Your task to perform on an android device: delete a single message in the gmail app Image 0: 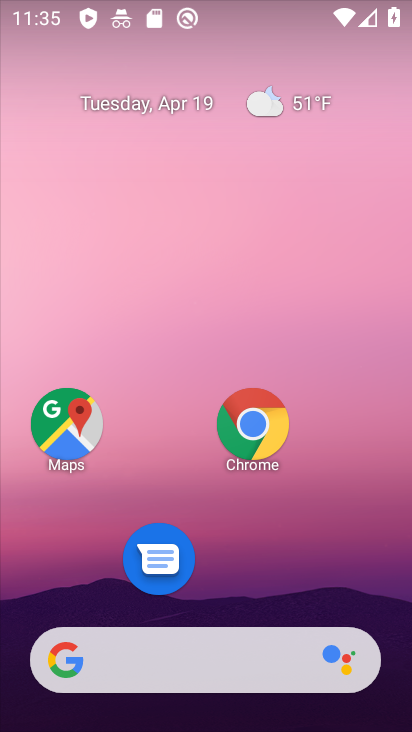
Step 0: drag from (326, 635) to (167, 70)
Your task to perform on an android device: delete a single message in the gmail app Image 1: 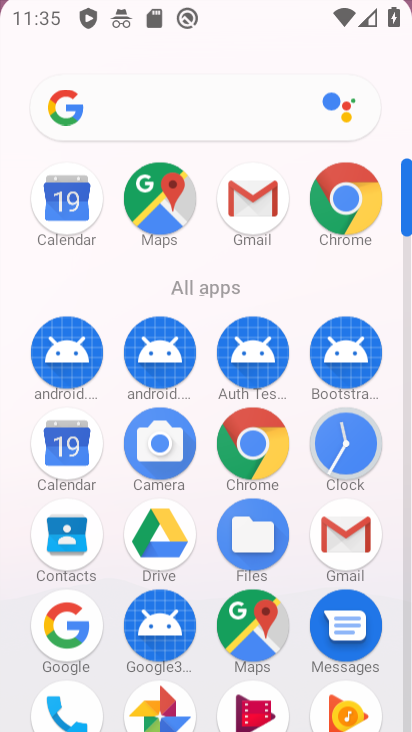
Step 1: drag from (237, 631) to (121, 5)
Your task to perform on an android device: delete a single message in the gmail app Image 2: 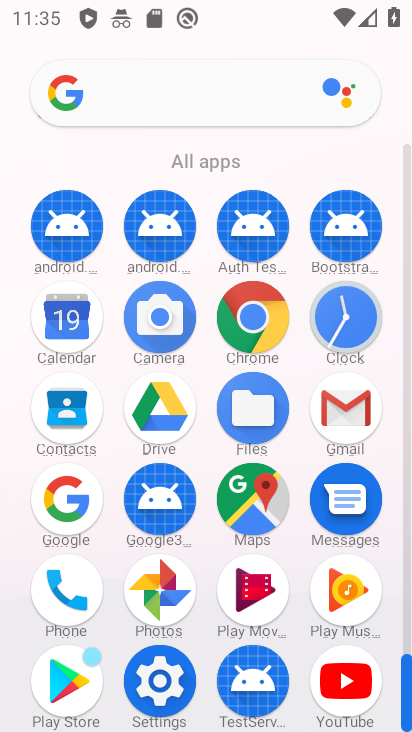
Step 2: click (341, 403)
Your task to perform on an android device: delete a single message in the gmail app Image 3: 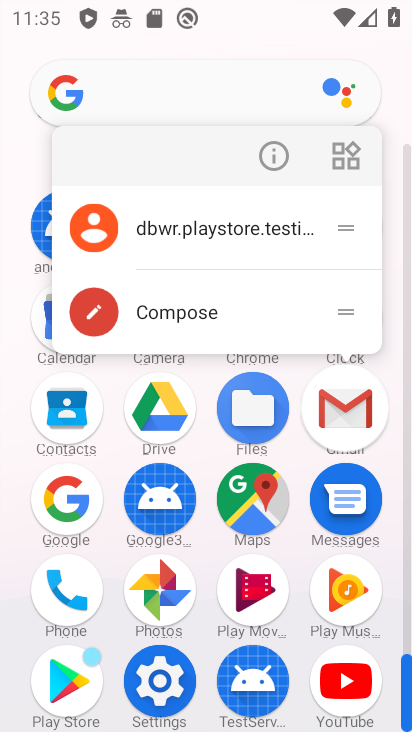
Step 3: click (341, 403)
Your task to perform on an android device: delete a single message in the gmail app Image 4: 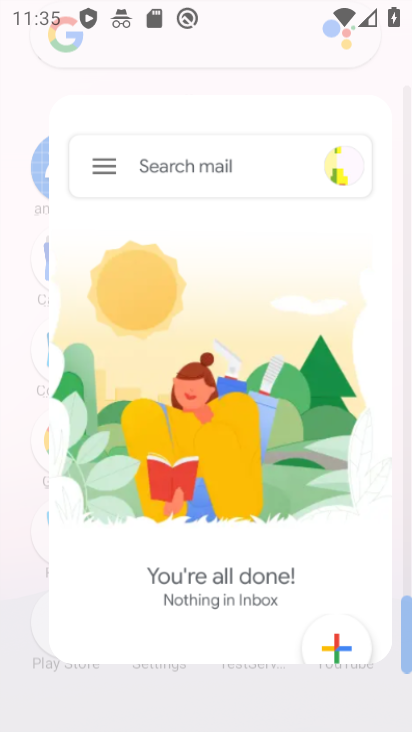
Step 4: click (341, 403)
Your task to perform on an android device: delete a single message in the gmail app Image 5: 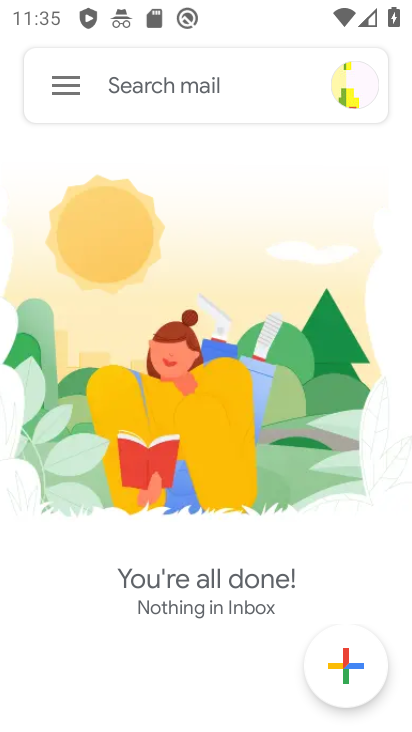
Step 5: click (60, 89)
Your task to perform on an android device: delete a single message in the gmail app Image 6: 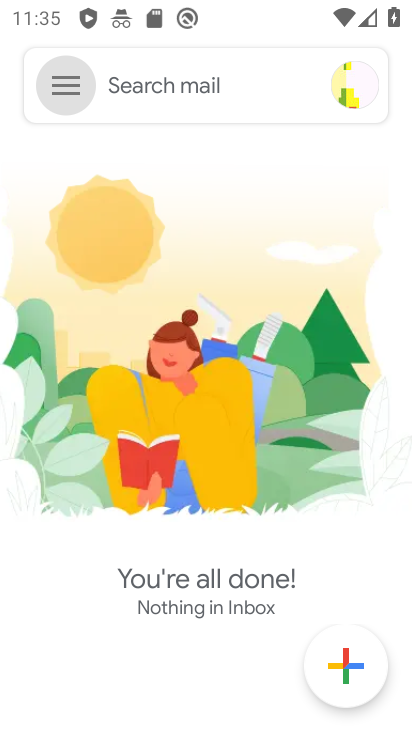
Step 6: click (60, 89)
Your task to perform on an android device: delete a single message in the gmail app Image 7: 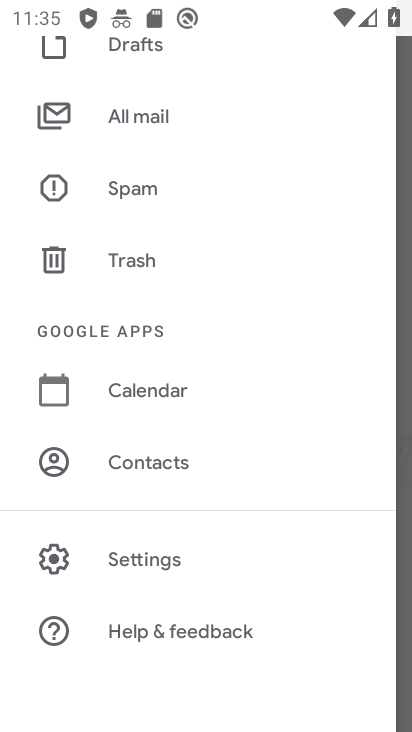
Step 7: click (116, 108)
Your task to perform on an android device: delete a single message in the gmail app Image 8: 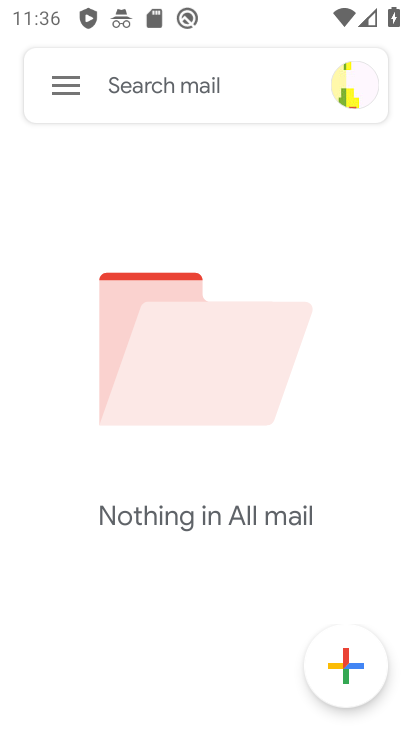
Step 8: click (60, 73)
Your task to perform on an android device: delete a single message in the gmail app Image 9: 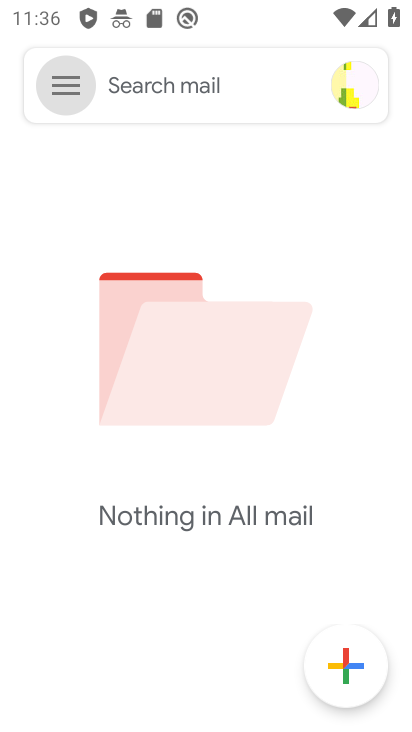
Step 9: click (60, 78)
Your task to perform on an android device: delete a single message in the gmail app Image 10: 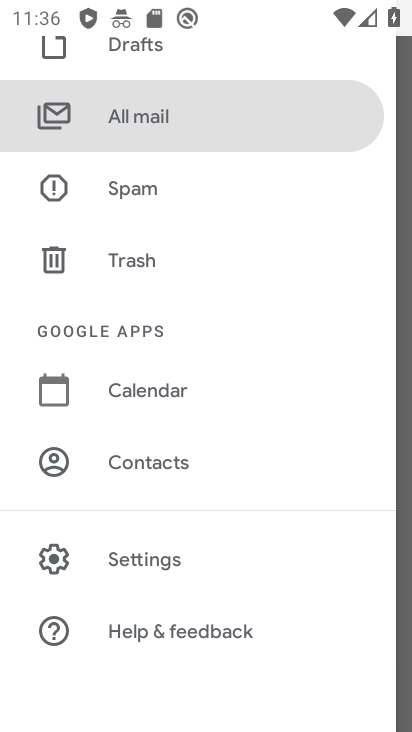
Step 10: click (146, 119)
Your task to perform on an android device: delete a single message in the gmail app Image 11: 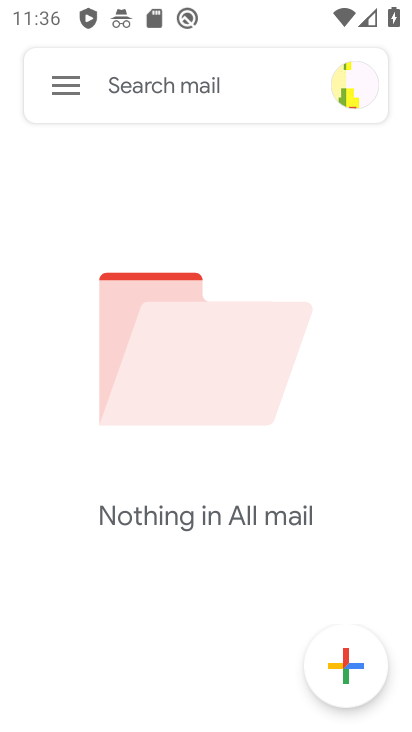
Step 11: task complete